Your task to perform on an android device: manage bookmarks in the chrome app Image 0: 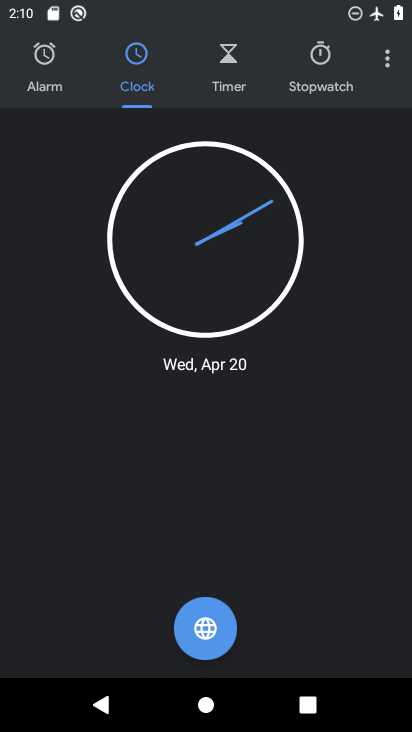
Step 0: press back button
Your task to perform on an android device: manage bookmarks in the chrome app Image 1: 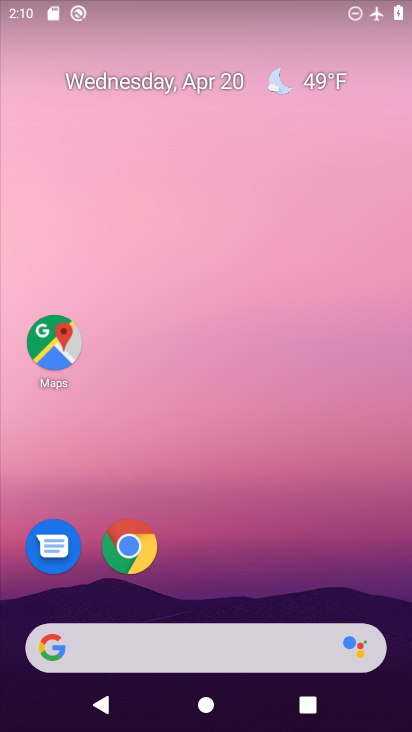
Step 1: click (124, 548)
Your task to perform on an android device: manage bookmarks in the chrome app Image 2: 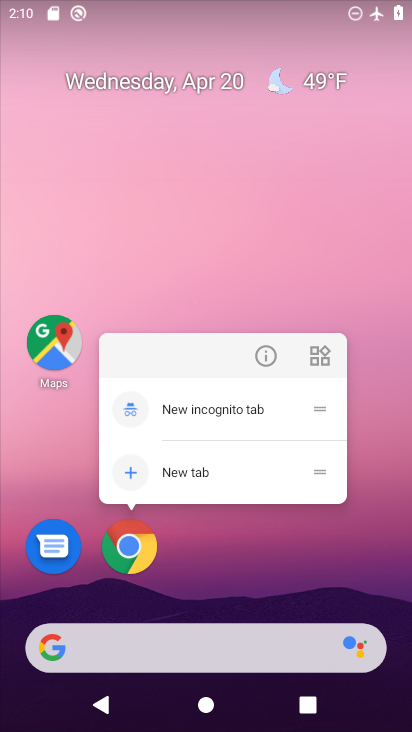
Step 2: click (127, 547)
Your task to perform on an android device: manage bookmarks in the chrome app Image 3: 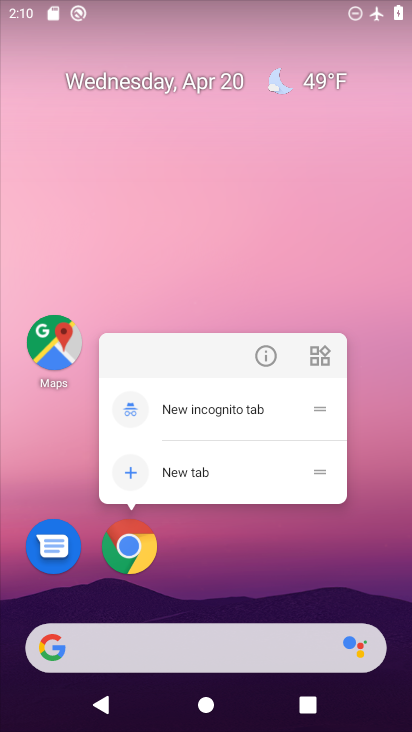
Step 3: click (127, 547)
Your task to perform on an android device: manage bookmarks in the chrome app Image 4: 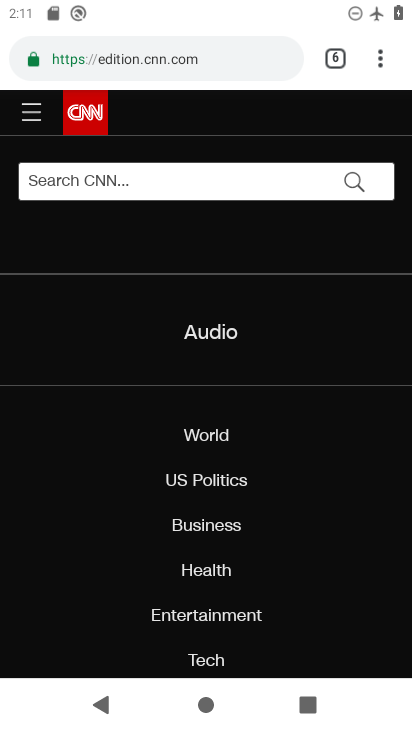
Step 4: click (380, 57)
Your task to perform on an android device: manage bookmarks in the chrome app Image 5: 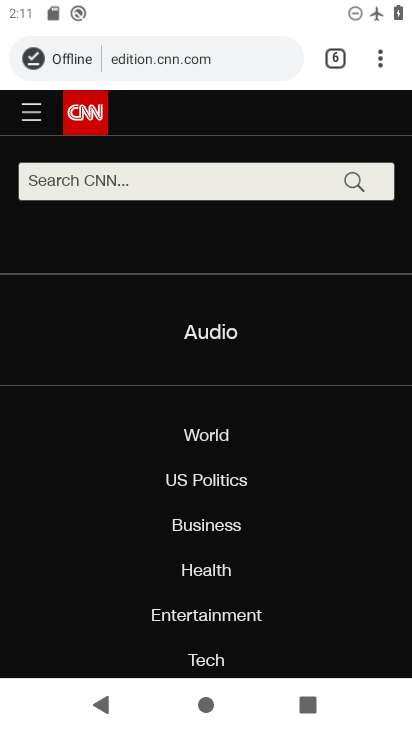
Step 5: drag from (384, 54) to (222, 279)
Your task to perform on an android device: manage bookmarks in the chrome app Image 6: 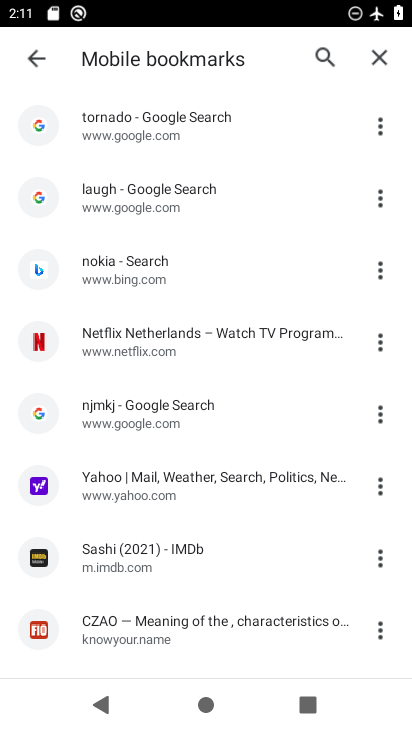
Step 6: click (376, 196)
Your task to perform on an android device: manage bookmarks in the chrome app Image 7: 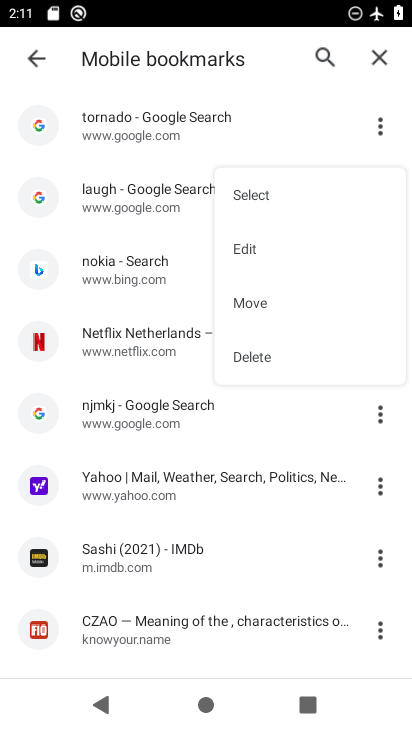
Step 7: click (273, 350)
Your task to perform on an android device: manage bookmarks in the chrome app Image 8: 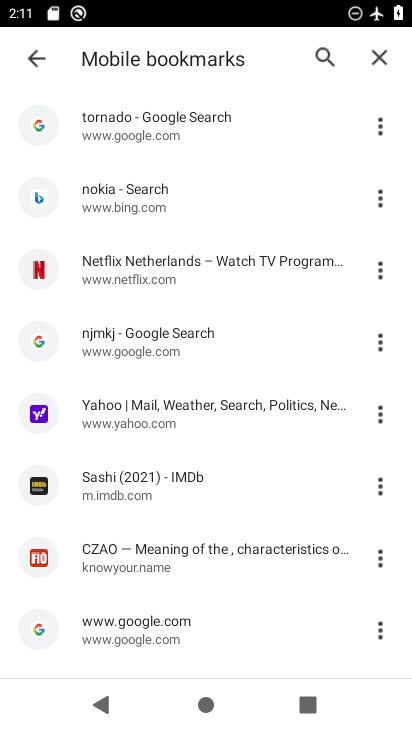
Step 8: task complete